Your task to perform on an android device: Set the phone to "Do not disturb". Image 0: 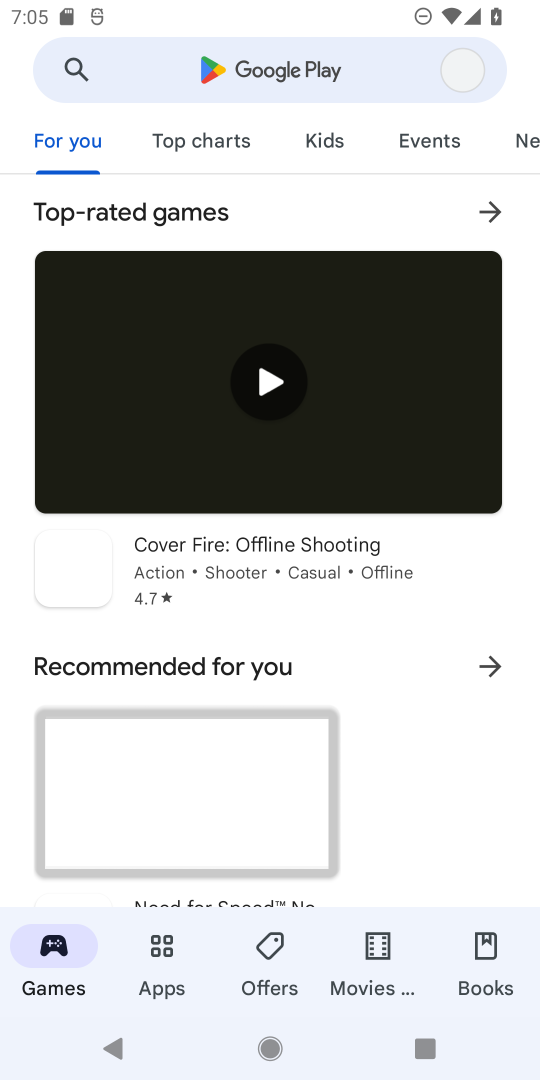
Step 0: press home button
Your task to perform on an android device: Set the phone to "Do not disturb". Image 1: 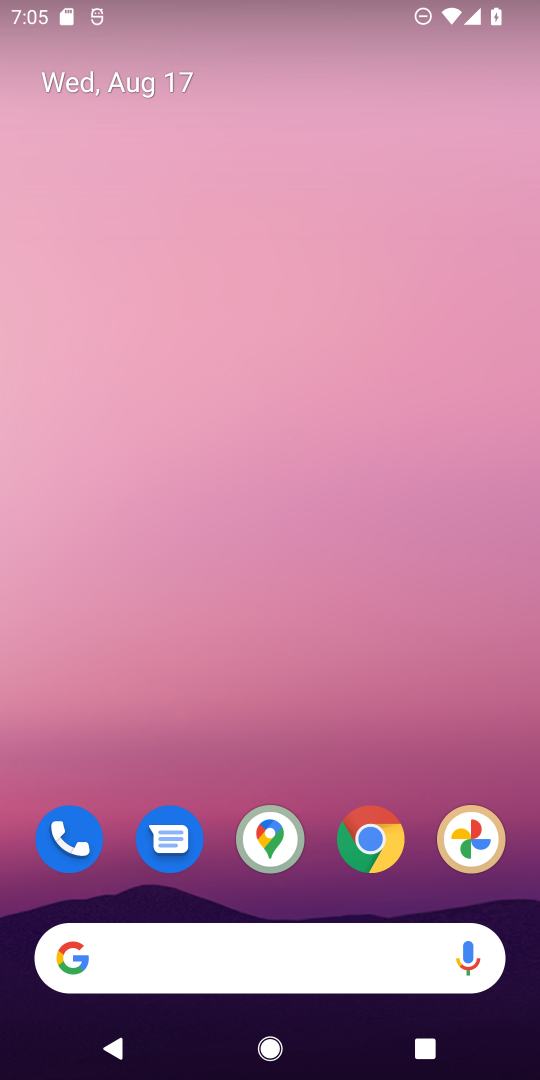
Step 1: task complete